Your task to perform on an android device: turn off improve location accuracy Image 0: 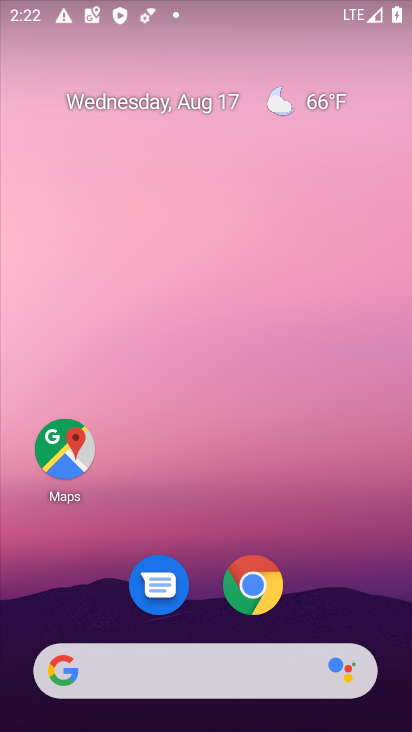
Step 0: drag from (217, 475) to (235, 0)
Your task to perform on an android device: turn off improve location accuracy Image 1: 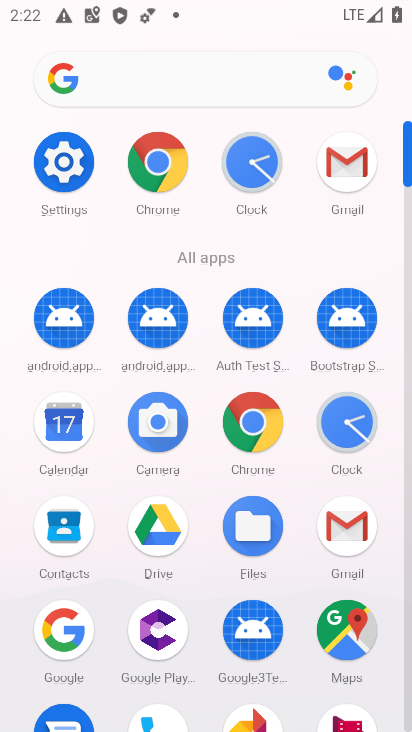
Step 1: click (63, 158)
Your task to perform on an android device: turn off improve location accuracy Image 2: 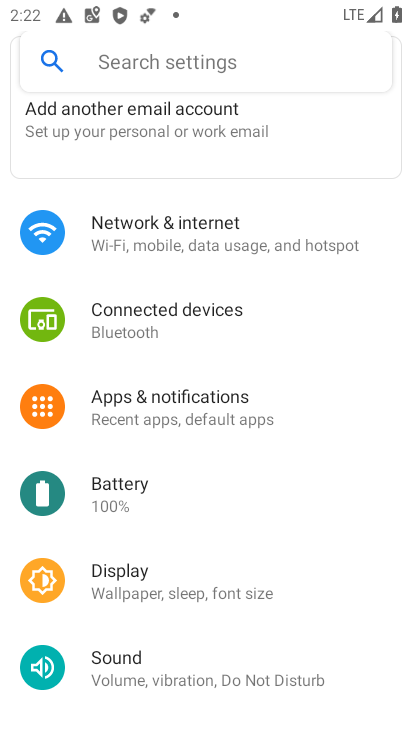
Step 2: drag from (222, 567) to (244, 0)
Your task to perform on an android device: turn off improve location accuracy Image 3: 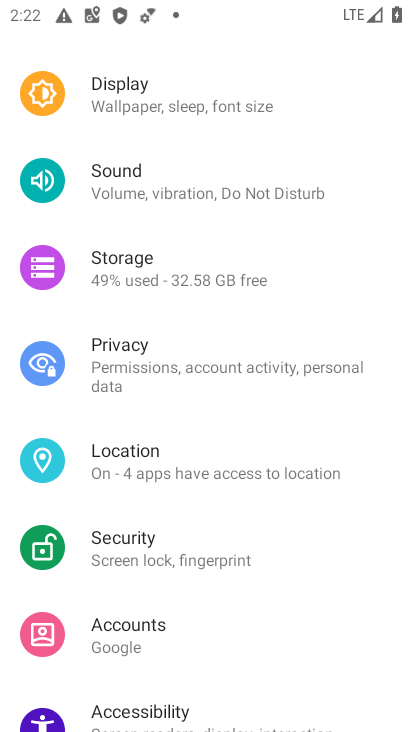
Step 3: click (211, 456)
Your task to perform on an android device: turn off improve location accuracy Image 4: 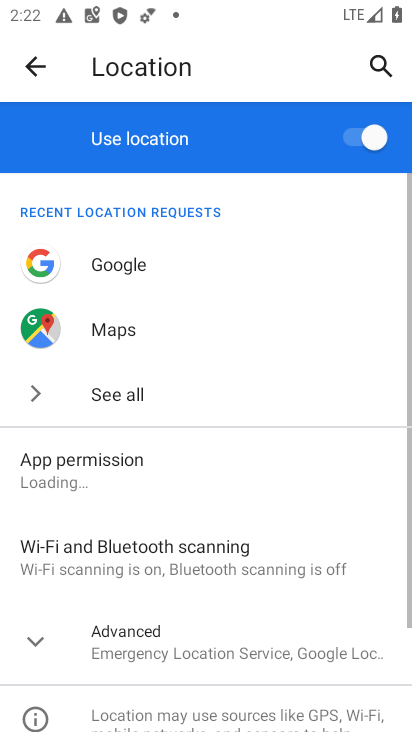
Step 4: drag from (207, 446) to (220, 275)
Your task to perform on an android device: turn off improve location accuracy Image 5: 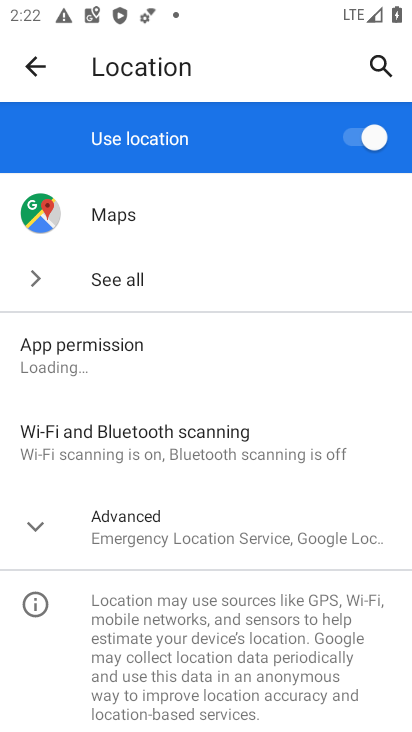
Step 5: click (38, 526)
Your task to perform on an android device: turn off improve location accuracy Image 6: 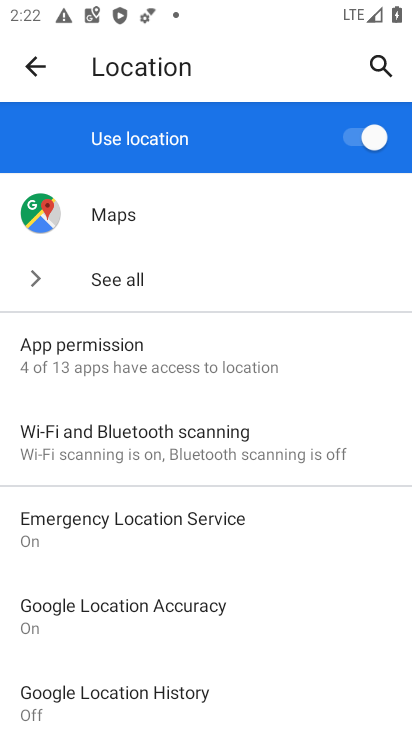
Step 6: click (104, 607)
Your task to perform on an android device: turn off improve location accuracy Image 7: 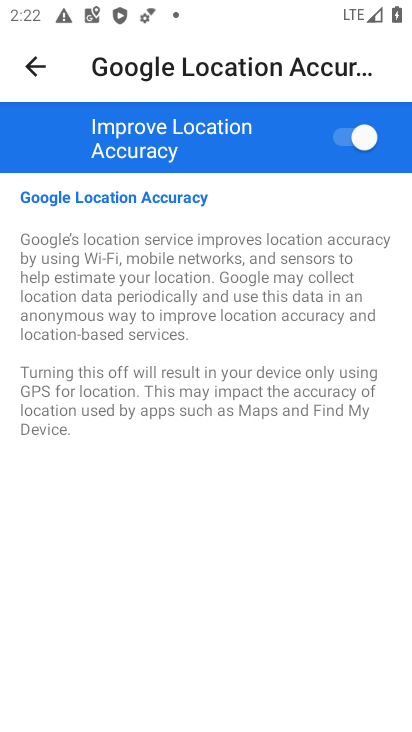
Step 7: click (358, 134)
Your task to perform on an android device: turn off improve location accuracy Image 8: 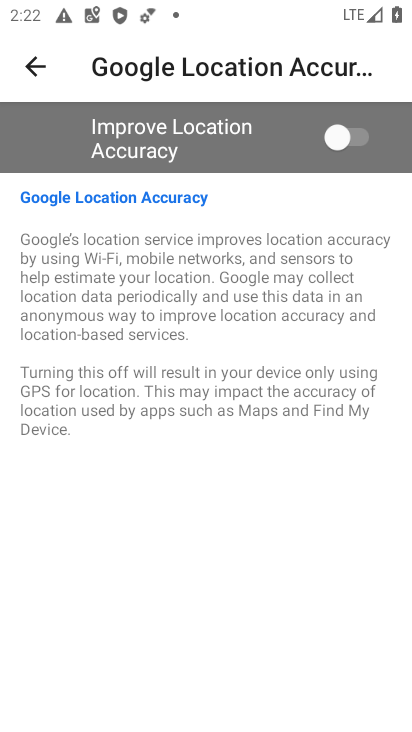
Step 8: task complete